Your task to perform on an android device: add a contact in the contacts app Image 0: 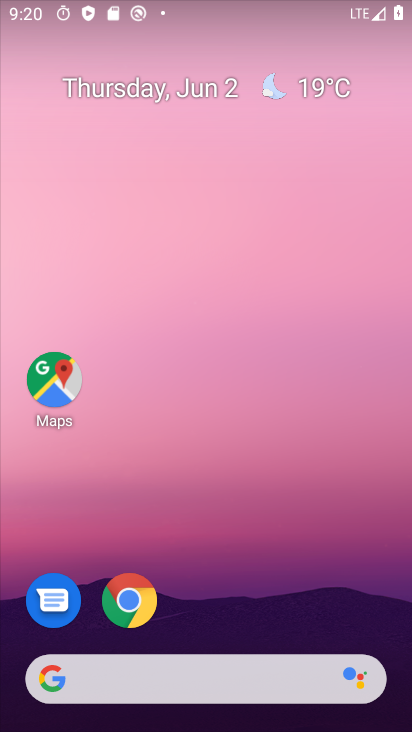
Step 0: drag from (190, 568) to (175, 200)
Your task to perform on an android device: add a contact in the contacts app Image 1: 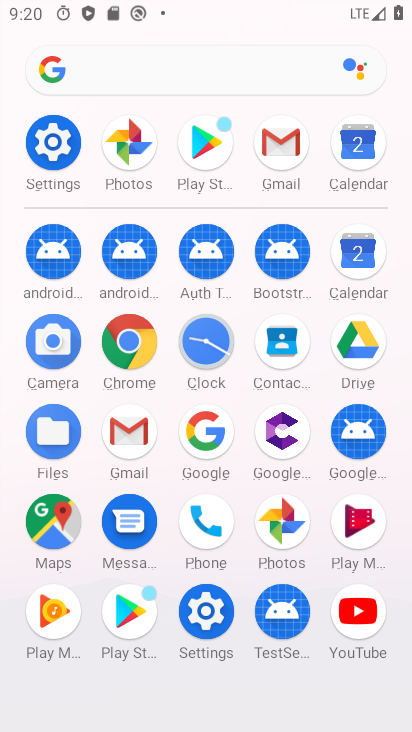
Step 1: click (263, 350)
Your task to perform on an android device: add a contact in the contacts app Image 2: 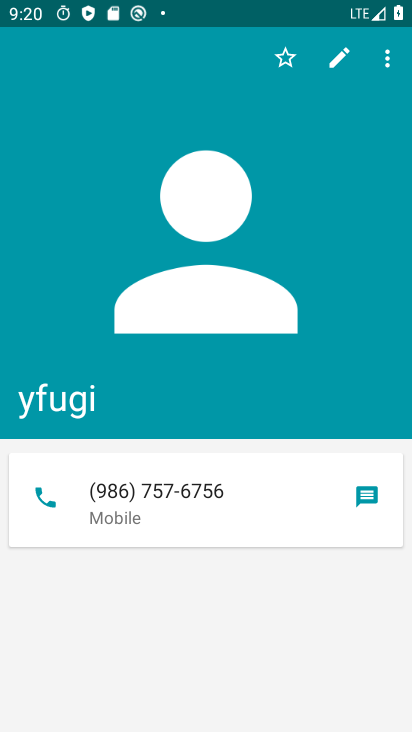
Step 2: press back button
Your task to perform on an android device: add a contact in the contacts app Image 3: 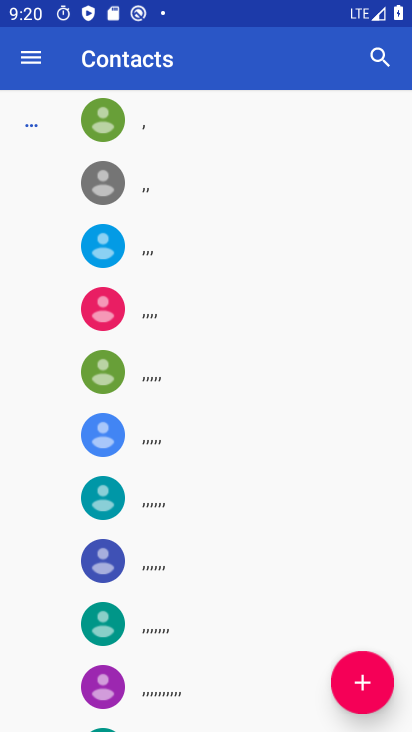
Step 3: click (359, 690)
Your task to perform on an android device: add a contact in the contacts app Image 4: 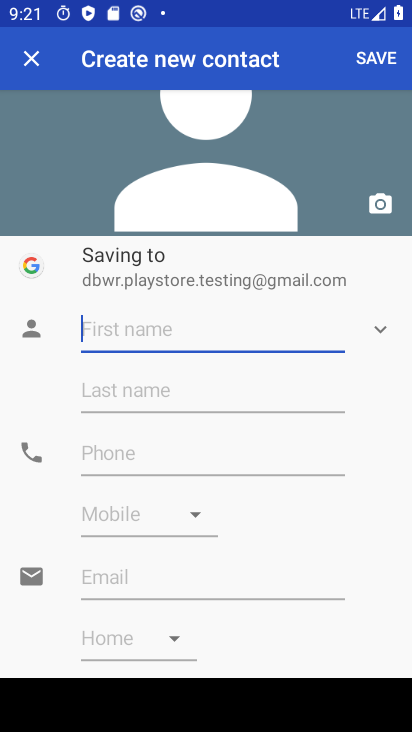
Step 4: type "xcghj"
Your task to perform on an android device: add a contact in the contacts app Image 5: 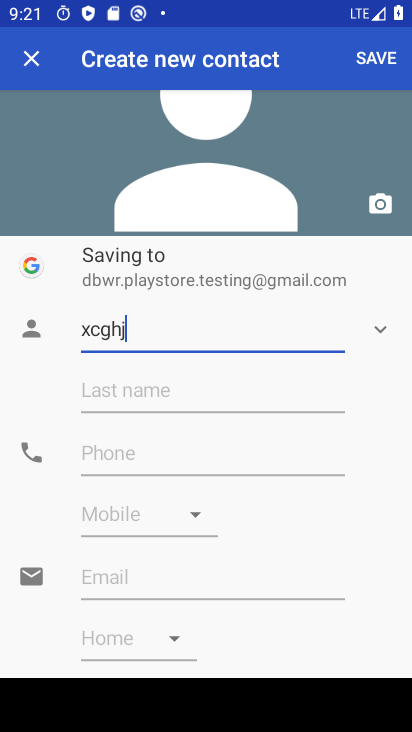
Step 5: click (148, 445)
Your task to perform on an android device: add a contact in the contacts app Image 6: 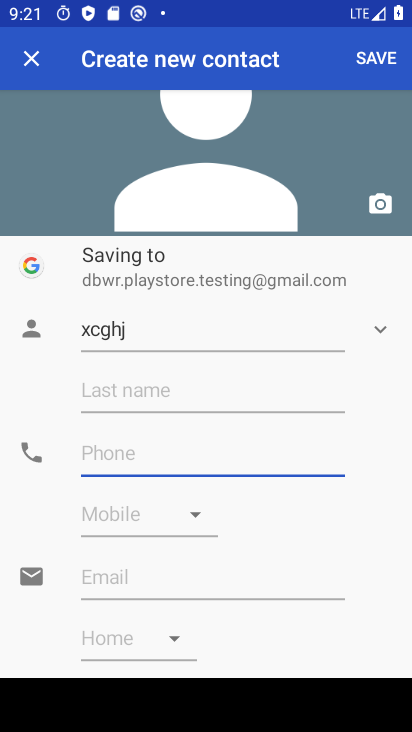
Step 6: type "98696758"
Your task to perform on an android device: add a contact in the contacts app Image 7: 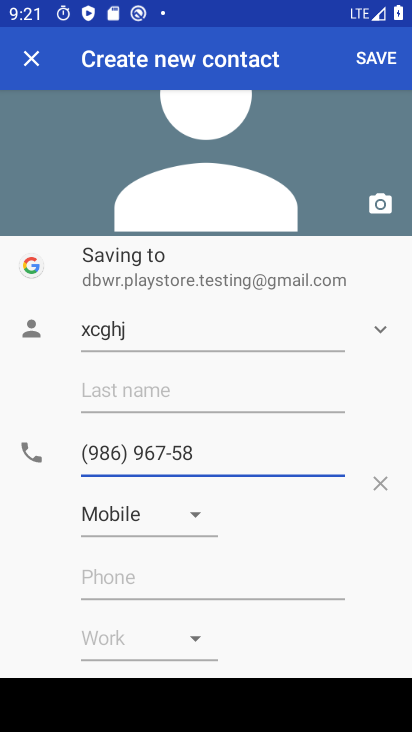
Step 7: click (372, 53)
Your task to perform on an android device: add a contact in the contacts app Image 8: 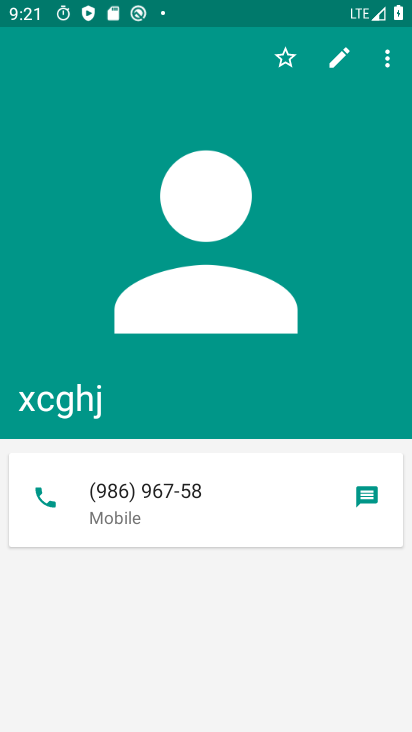
Step 8: task complete